Your task to perform on an android device: turn on airplane mode Image 0: 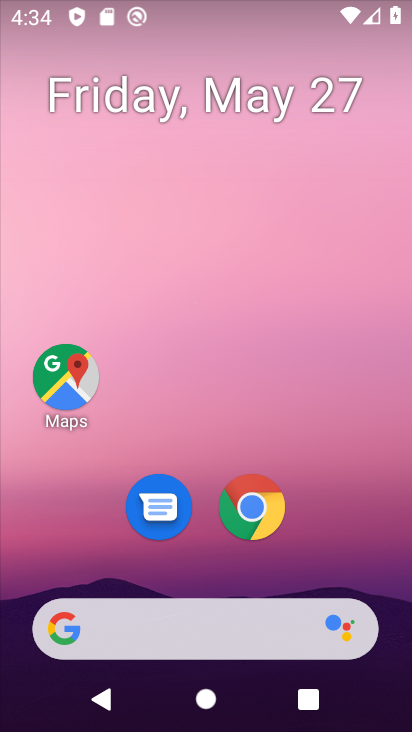
Step 0: drag from (328, 544) to (258, 28)
Your task to perform on an android device: turn on airplane mode Image 1: 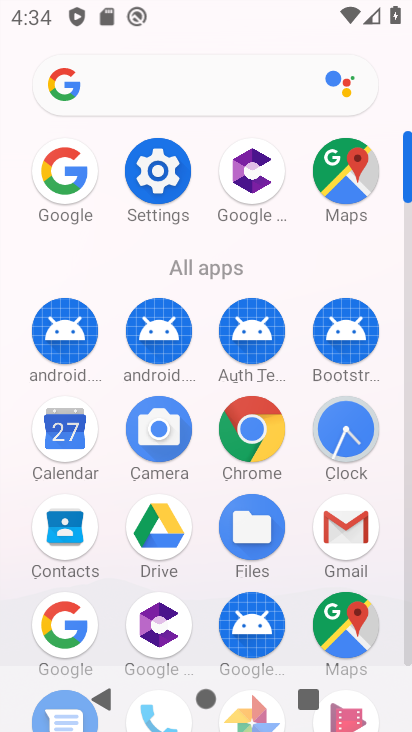
Step 1: click (158, 173)
Your task to perform on an android device: turn on airplane mode Image 2: 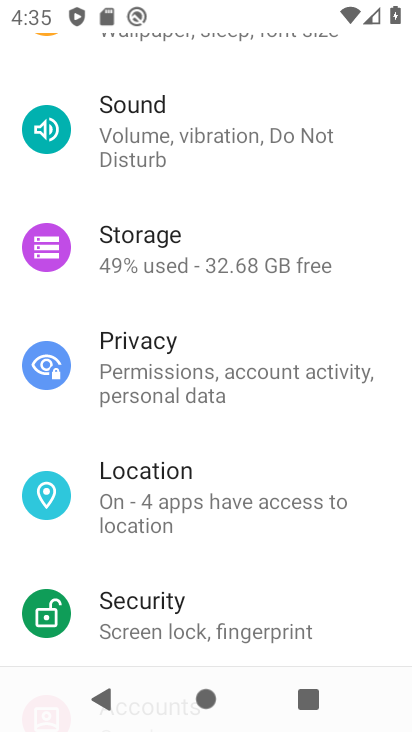
Step 2: drag from (223, 251) to (206, 380)
Your task to perform on an android device: turn on airplane mode Image 3: 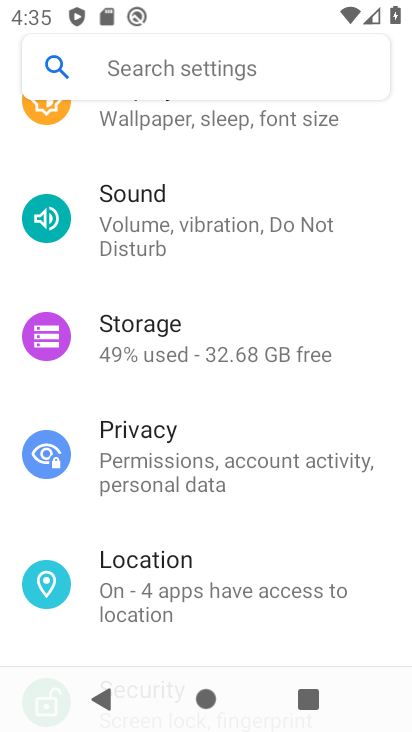
Step 3: drag from (224, 170) to (212, 403)
Your task to perform on an android device: turn on airplane mode Image 4: 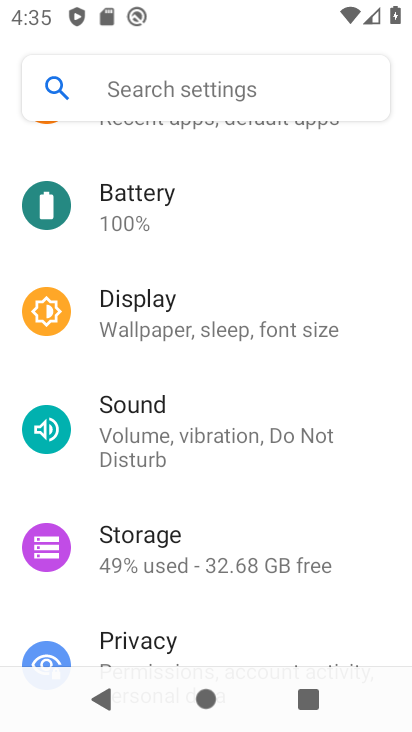
Step 4: drag from (231, 210) to (235, 407)
Your task to perform on an android device: turn on airplane mode Image 5: 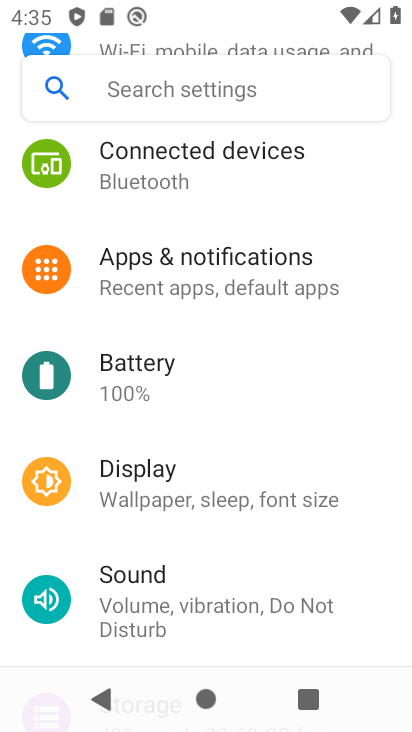
Step 5: drag from (228, 220) to (225, 400)
Your task to perform on an android device: turn on airplane mode Image 6: 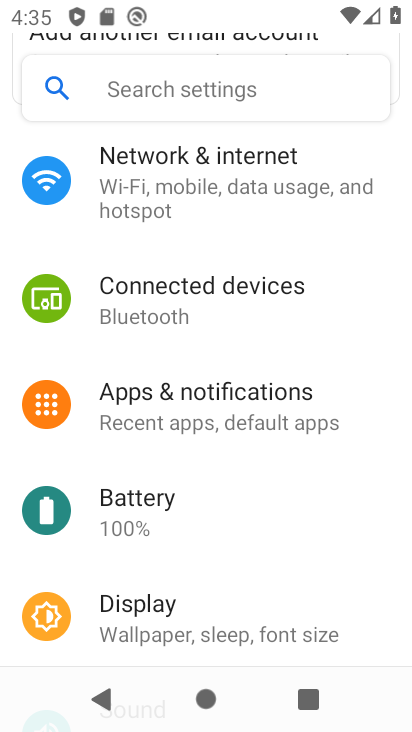
Step 6: click (206, 161)
Your task to perform on an android device: turn on airplane mode Image 7: 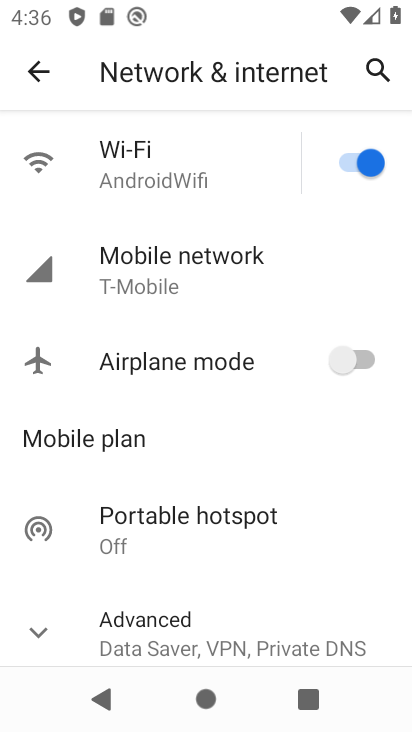
Step 7: click (327, 357)
Your task to perform on an android device: turn on airplane mode Image 8: 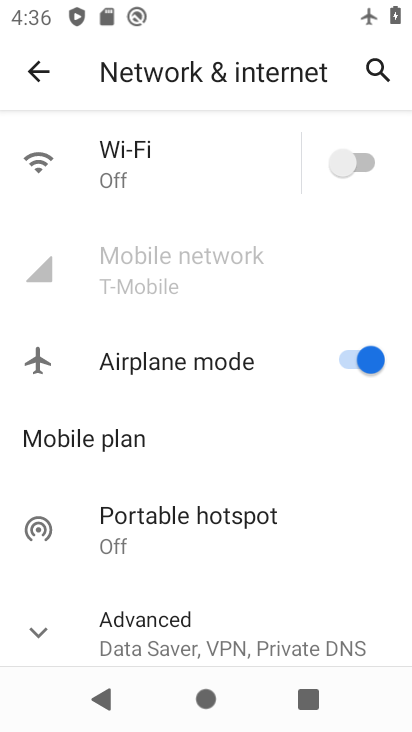
Step 8: task complete